Your task to perform on an android device: Clear the shopping cart on target.com. Search for razer huntsman on target.com, select the first entry, and add it to the cart. Image 0: 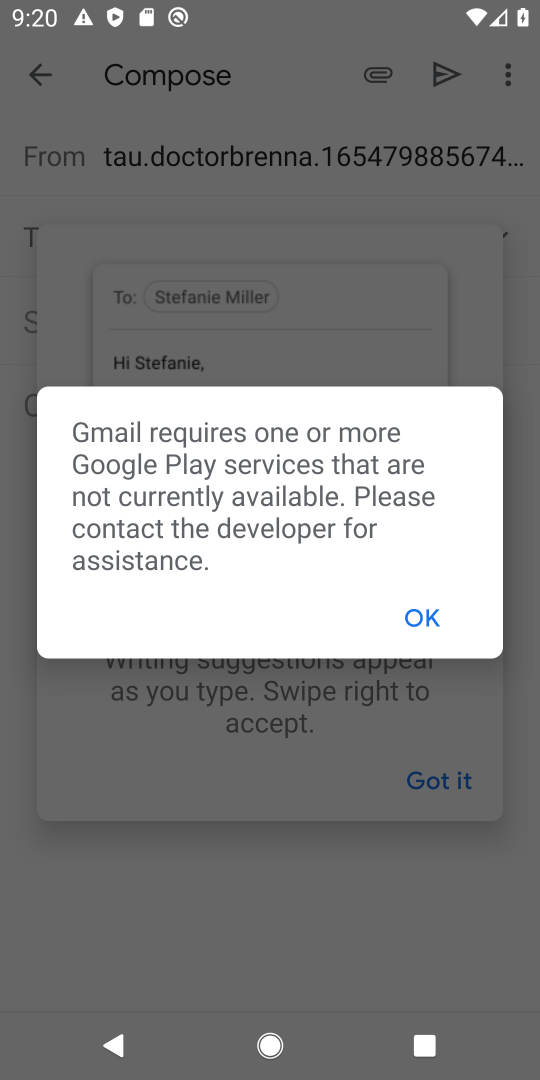
Step 0: press home button
Your task to perform on an android device: Clear the shopping cart on target.com. Search for razer huntsman on target.com, select the first entry, and add it to the cart. Image 1: 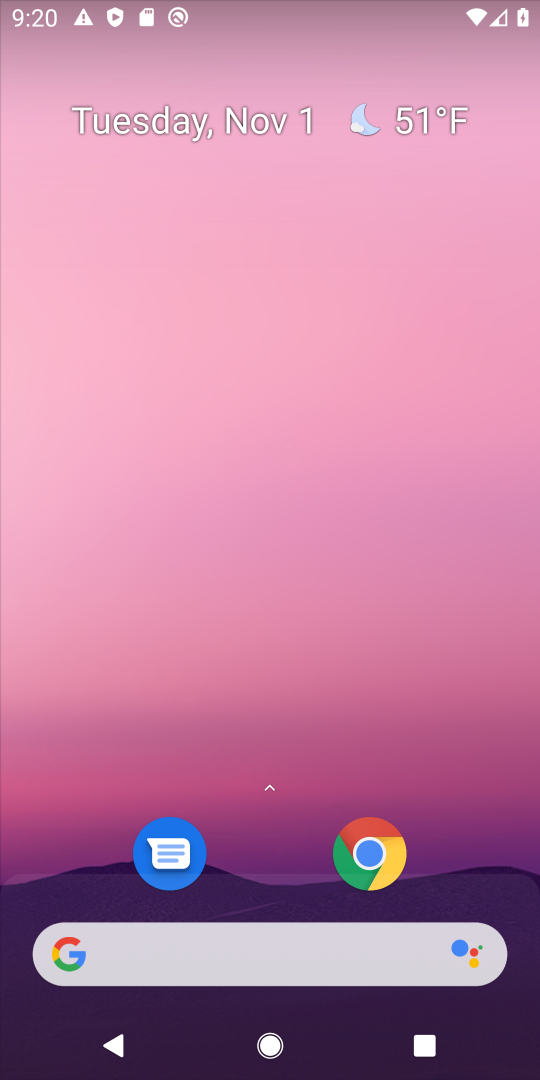
Step 1: click (330, 993)
Your task to perform on an android device: Clear the shopping cart on target.com. Search for razer huntsman on target.com, select the first entry, and add it to the cart. Image 2: 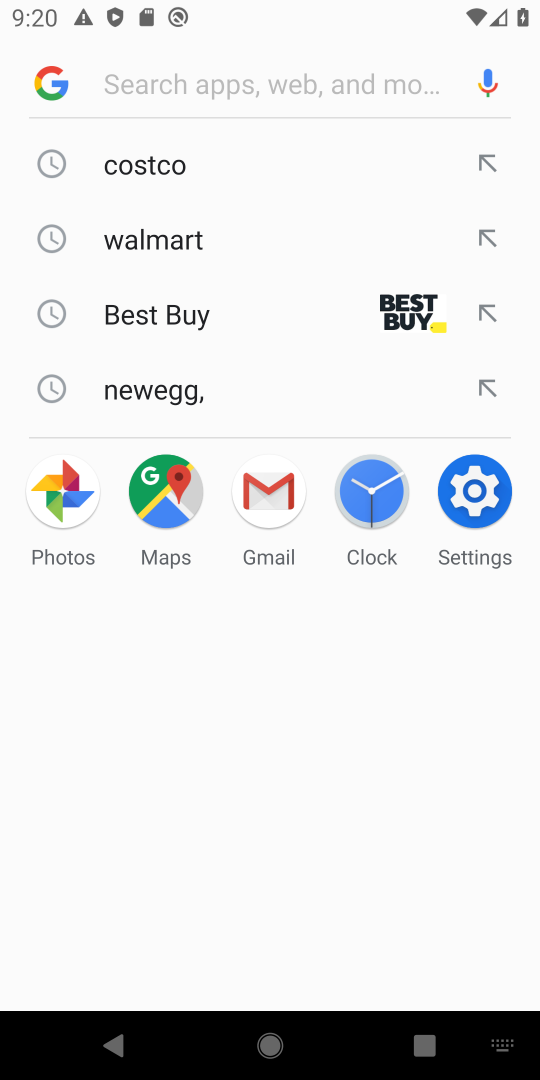
Step 2: click (345, 89)
Your task to perform on an android device: Clear the shopping cart on target.com. Search for razer huntsman on target.com, select the first entry, and add it to the cart. Image 3: 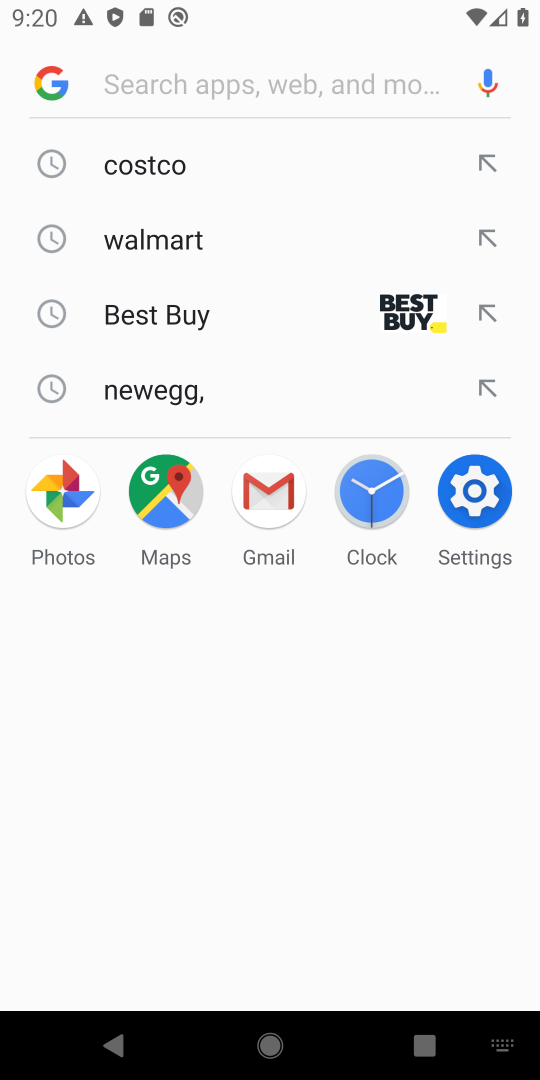
Step 3: type "targer"
Your task to perform on an android device: Clear the shopping cart on target.com. Search for razer huntsman on target.com, select the first entry, and add it to the cart. Image 4: 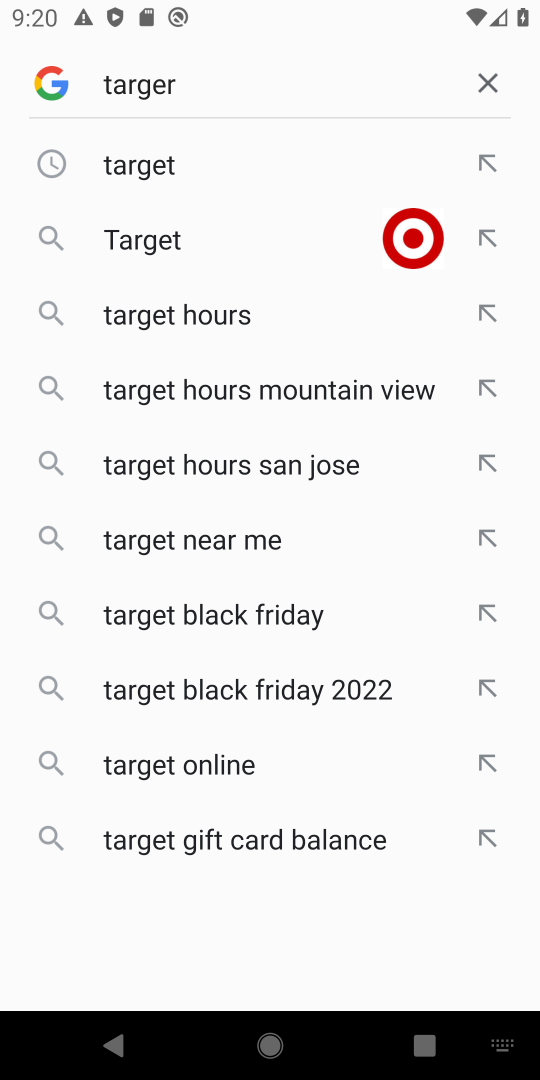
Step 4: click (234, 246)
Your task to perform on an android device: Clear the shopping cart on target.com. Search for razer huntsman on target.com, select the first entry, and add it to the cart. Image 5: 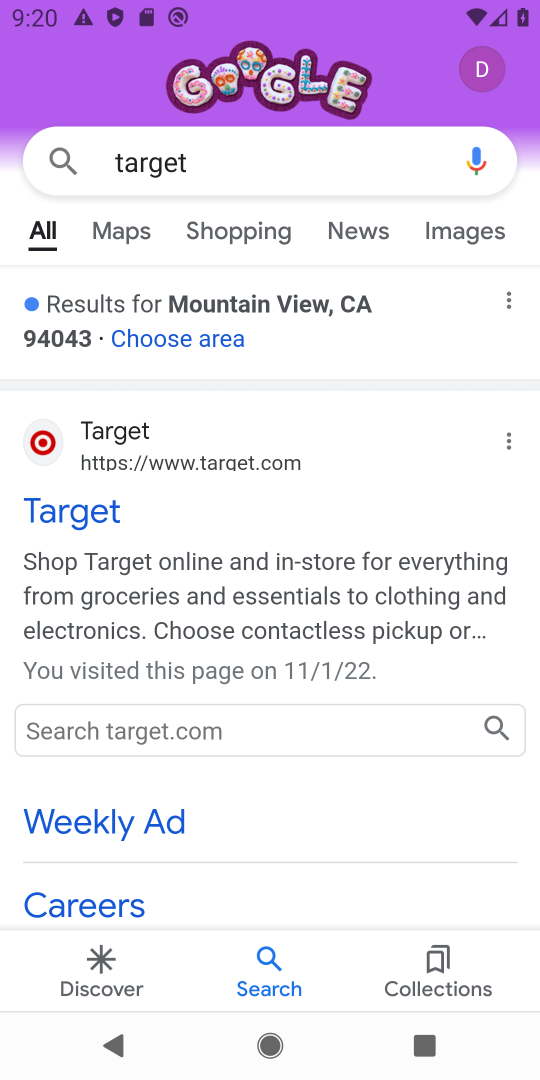
Step 5: click (103, 426)
Your task to perform on an android device: Clear the shopping cart on target.com. Search for razer huntsman on target.com, select the first entry, and add it to the cart. Image 6: 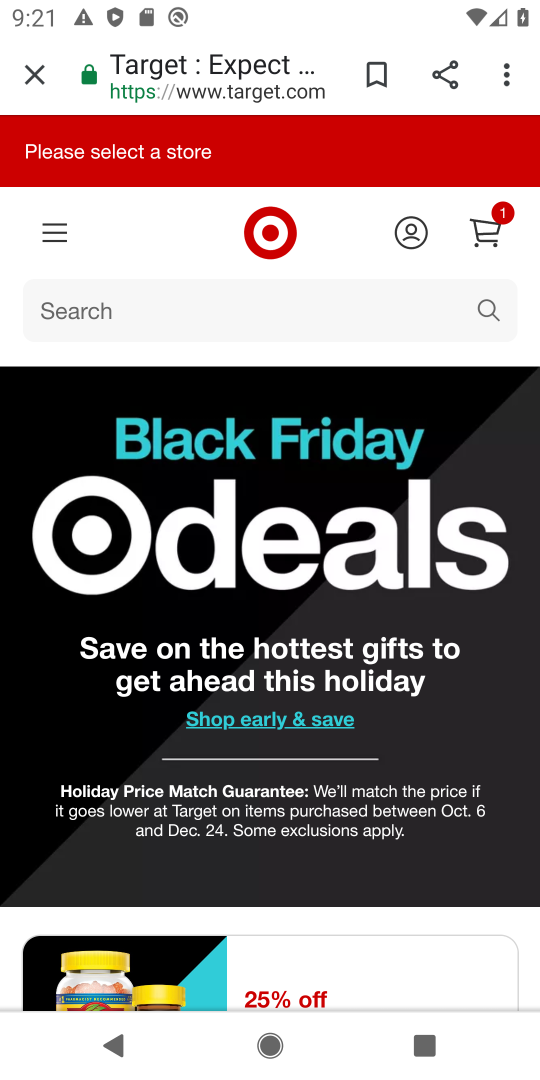
Step 6: click (231, 324)
Your task to perform on an android device: Clear the shopping cart on target.com. Search for razer huntsman on target.com, select the first entry, and add it to the cart. Image 7: 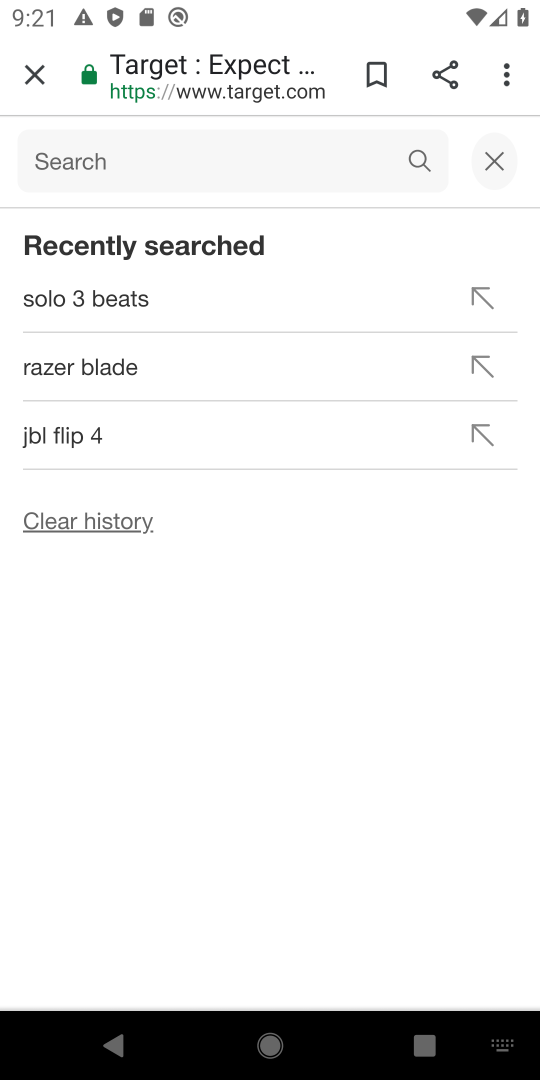
Step 7: type "razer huntsman"
Your task to perform on an android device: Clear the shopping cart on target.com. Search for razer huntsman on target.com, select the first entry, and add it to the cart. Image 8: 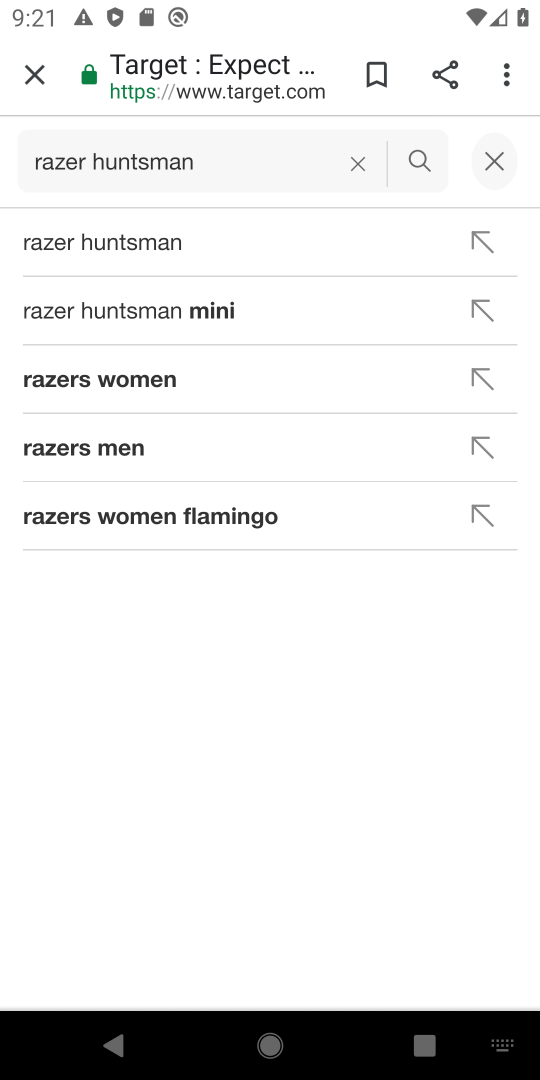
Step 8: click (132, 237)
Your task to perform on an android device: Clear the shopping cart on target.com. Search for razer huntsman on target.com, select the first entry, and add it to the cart. Image 9: 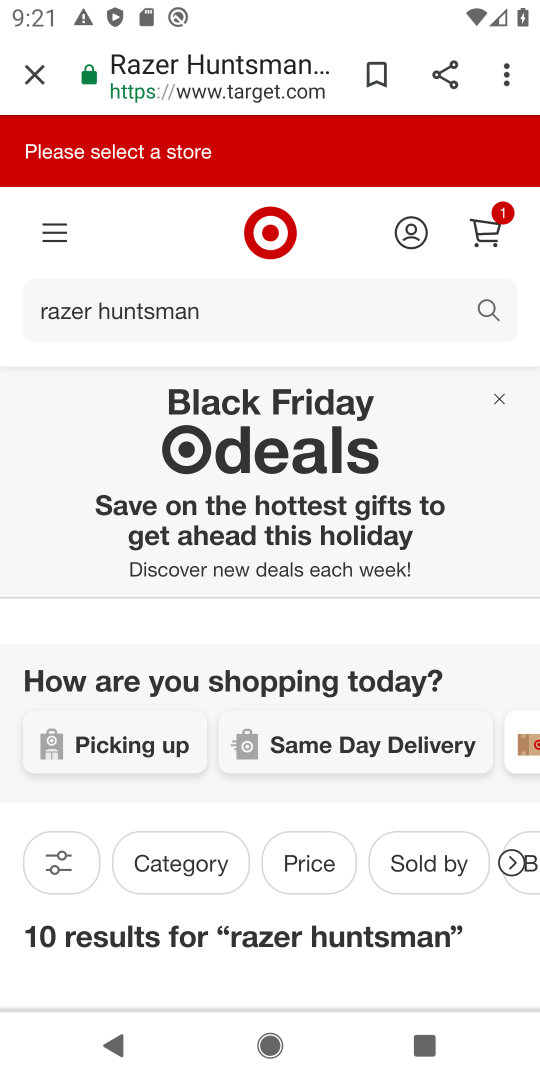
Step 9: click (337, 737)
Your task to perform on an android device: Clear the shopping cart on target.com. Search for razer huntsman on target.com, select the first entry, and add it to the cart. Image 10: 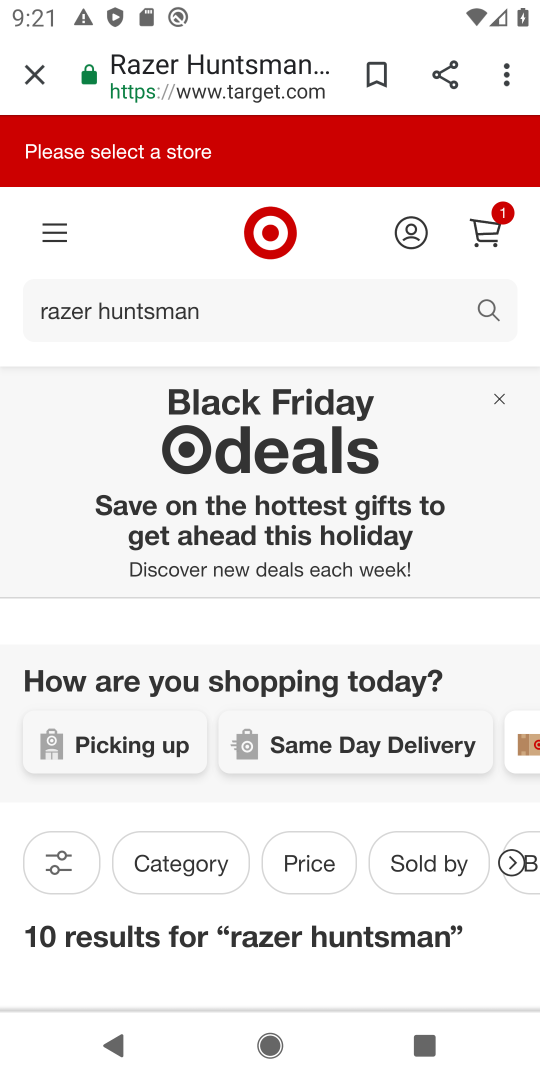
Step 10: click (316, 401)
Your task to perform on an android device: Clear the shopping cart on target.com. Search for razer huntsman on target.com, select the first entry, and add it to the cart. Image 11: 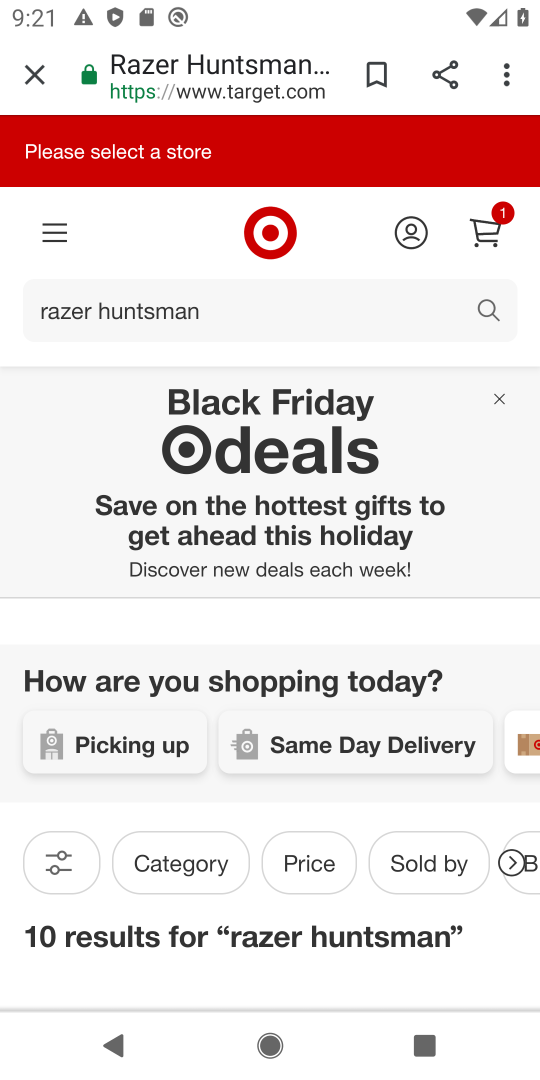
Step 11: click (329, 353)
Your task to perform on an android device: Clear the shopping cart on target.com. Search for razer huntsman on target.com, select the first entry, and add it to the cart. Image 12: 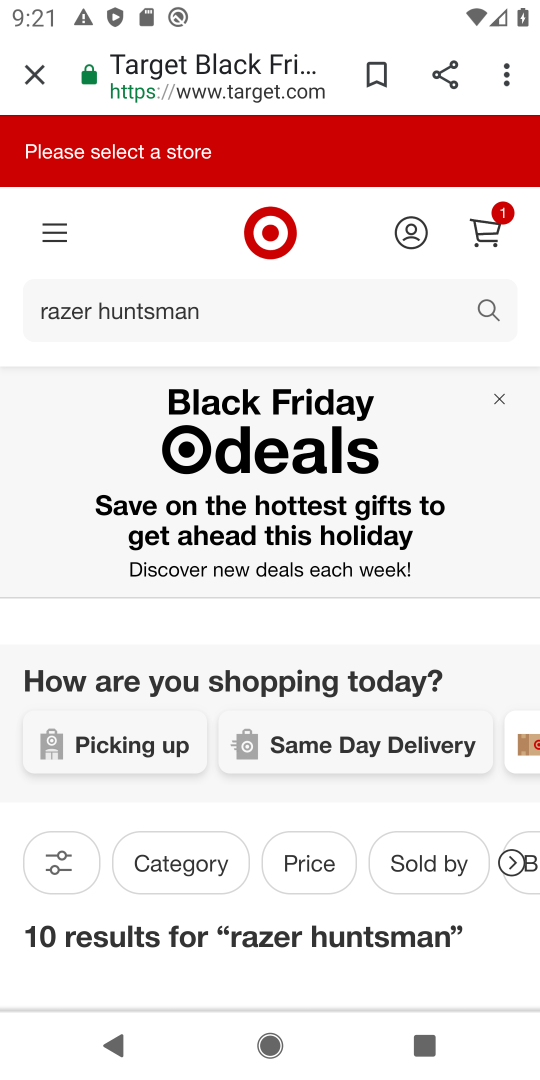
Step 12: click (504, 405)
Your task to perform on an android device: Clear the shopping cart on target.com. Search for razer huntsman on target.com, select the first entry, and add it to the cart. Image 13: 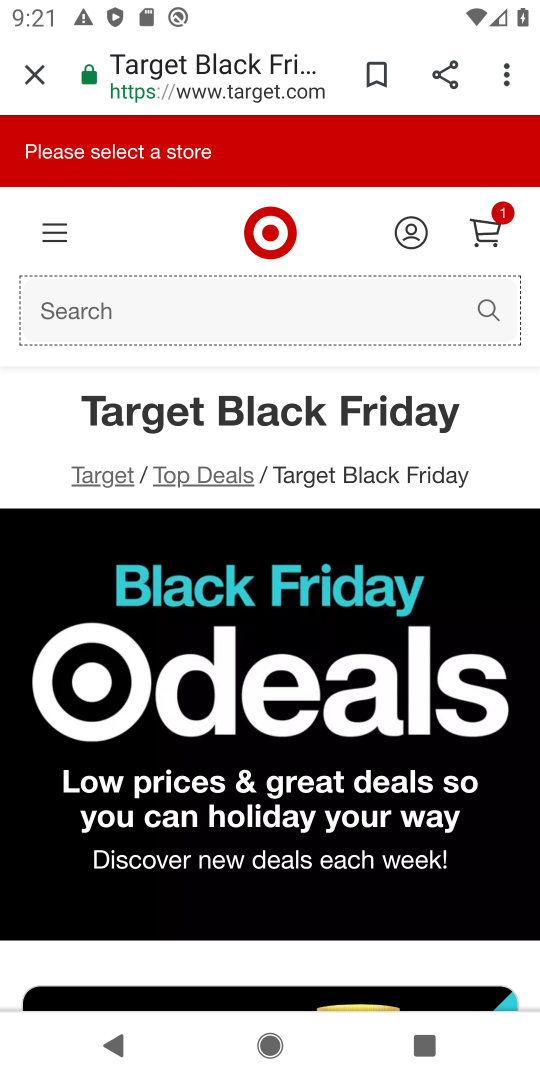
Step 13: drag from (391, 656) to (392, 522)
Your task to perform on an android device: Clear the shopping cart on target.com. Search for razer huntsman on target.com, select the first entry, and add it to the cart. Image 14: 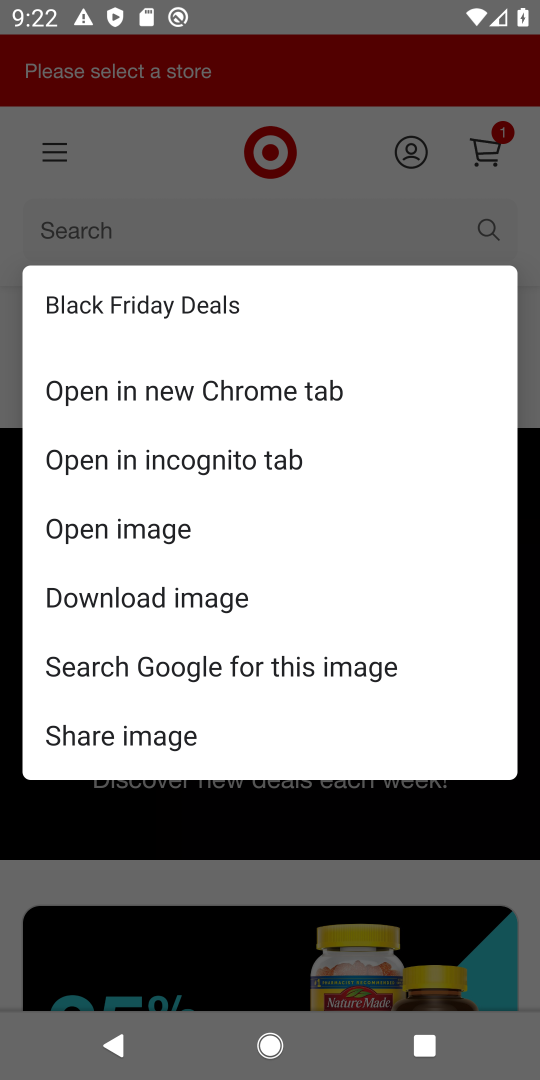
Step 14: click (290, 219)
Your task to perform on an android device: Clear the shopping cart on target.com. Search for razer huntsman on target.com, select the first entry, and add it to the cart. Image 15: 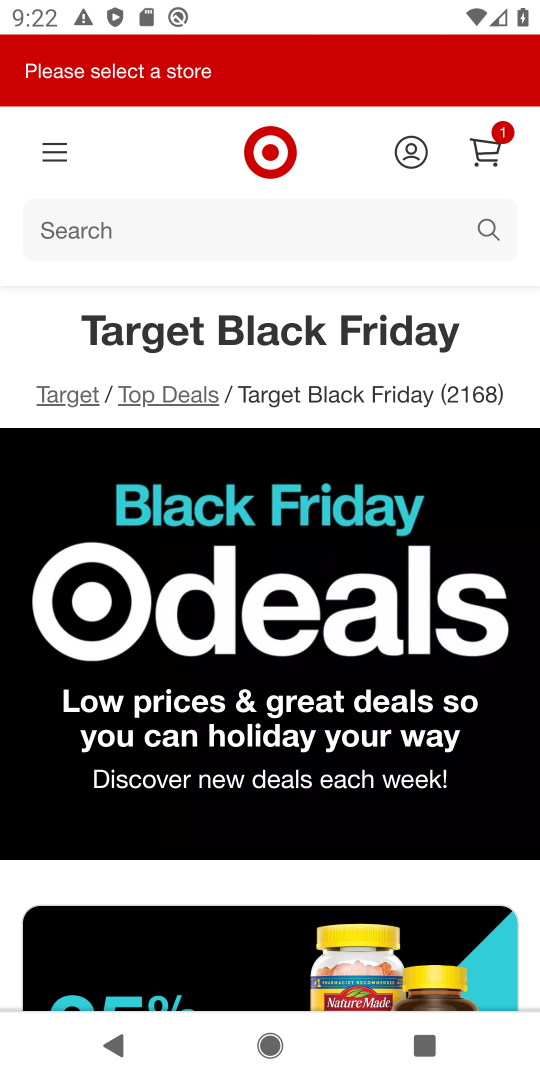
Step 15: drag from (279, 912) to (290, 489)
Your task to perform on an android device: Clear the shopping cart on target.com. Search for razer huntsman on target.com, select the first entry, and add it to the cart. Image 16: 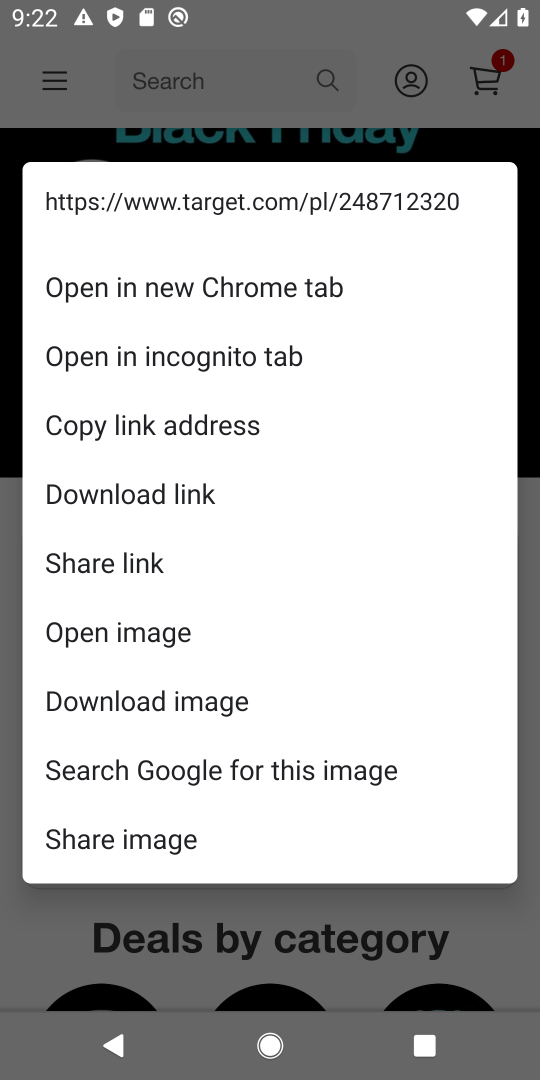
Step 16: click (199, 938)
Your task to perform on an android device: Clear the shopping cart on target.com. Search for razer huntsman on target.com, select the first entry, and add it to the cart. Image 17: 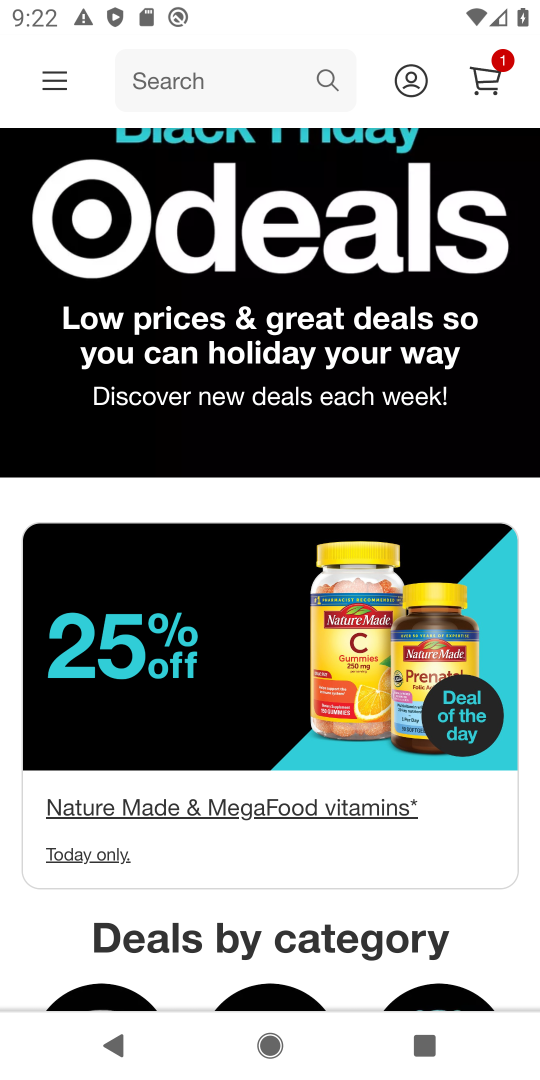
Step 17: task complete